Your task to perform on an android device: turn off wifi Image 0: 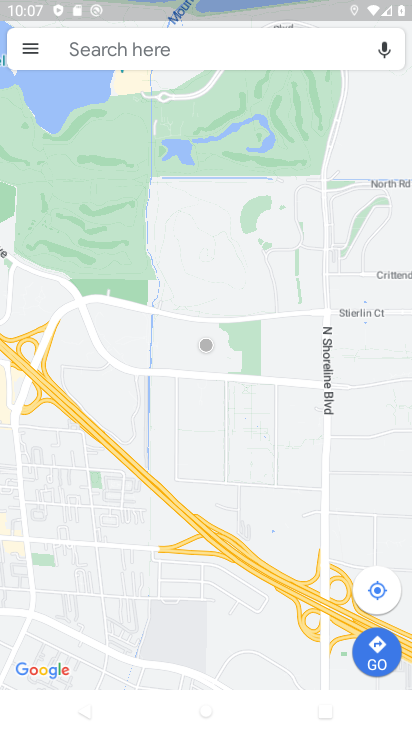
Step 0: press home button
Your task to perform on an android device: turn off wifi Image 1: 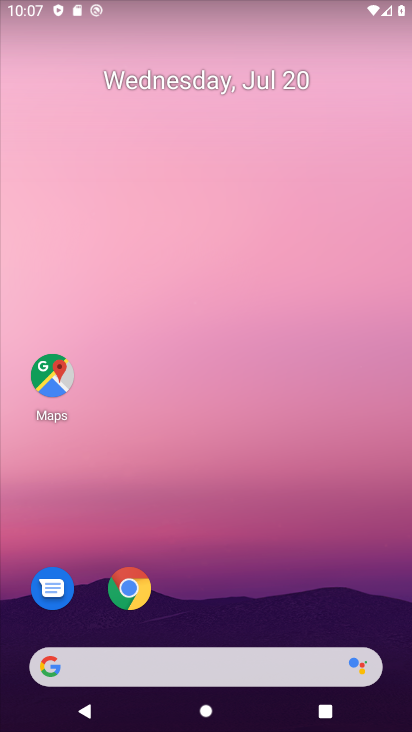
Step 1: drag from (229, 627) to (193, 2)
Your task to perform on an android device: turn off wifi Image 2: 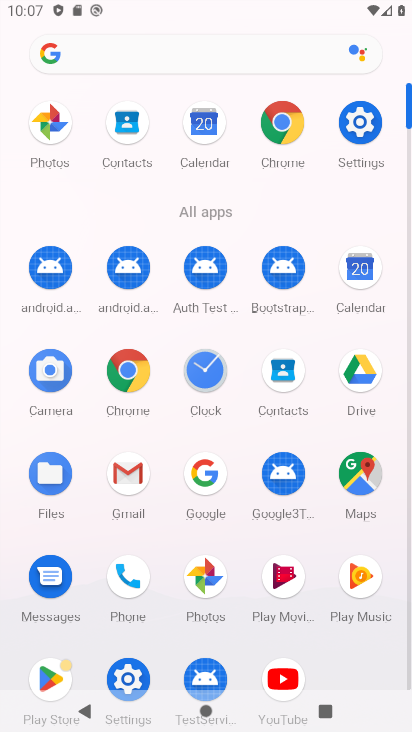
Step 2: click (360, 157)
Your task to perform on an android device: turn off wifi Image 3: 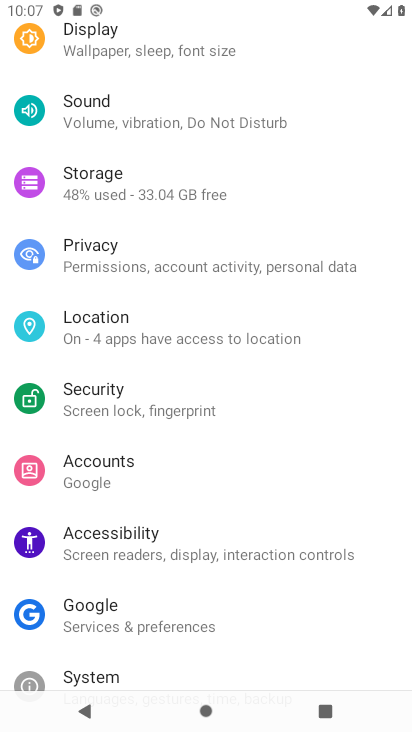
Step 3: drag from (212, 89) to (220, 609)
Your task to perform on an android device: turn off wifi Image 4: 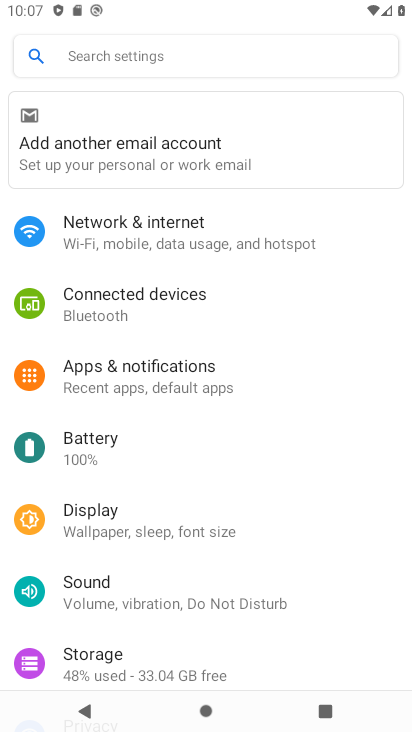
Step 4: click (154, 231)
Your task to perform on an android device: turn off wifi Image 5: 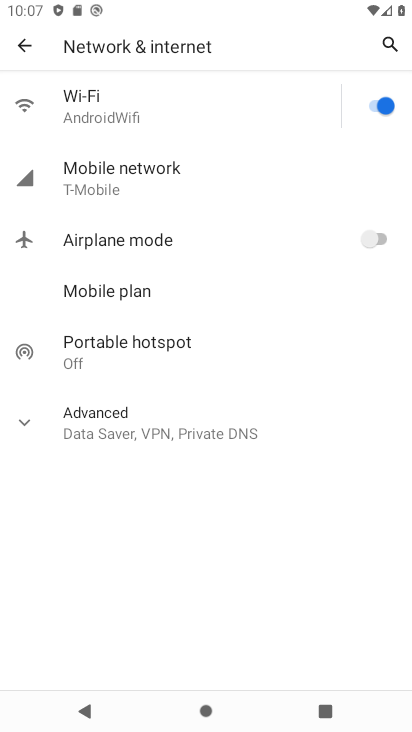
Step 5: click (355, 104)
Your task to perform on an android device: turn off wifi Image 6: 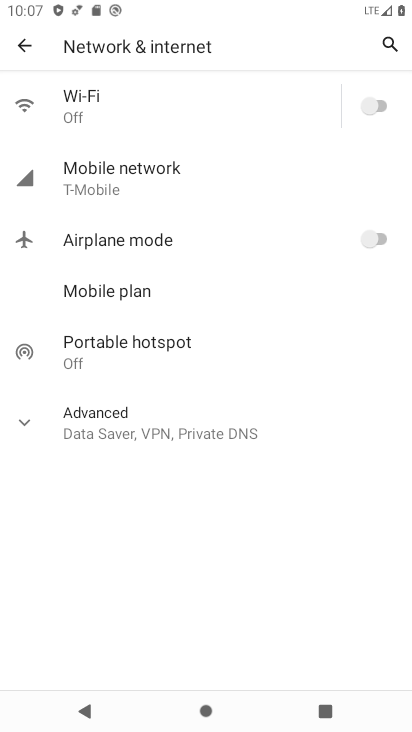
Step 6: task complete